Your task to perform on an android device: see creations saved in the google photos Image 0: 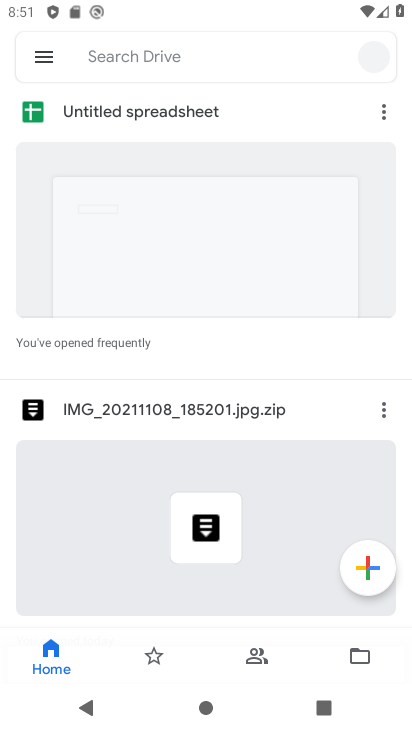
Step 0: press home button
Your task to perform on an android device: see creations saved in the google photos Image 1: 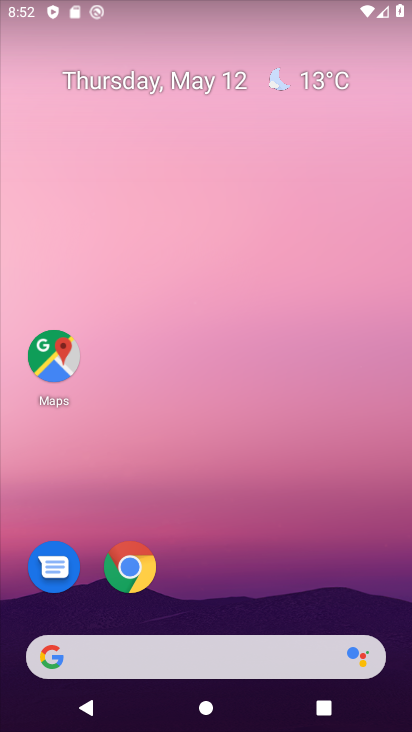
Step 1: drag from (204, 604) to (246, 104)
Your task to perform on an android device: see creations saved in the google photos Image 2: 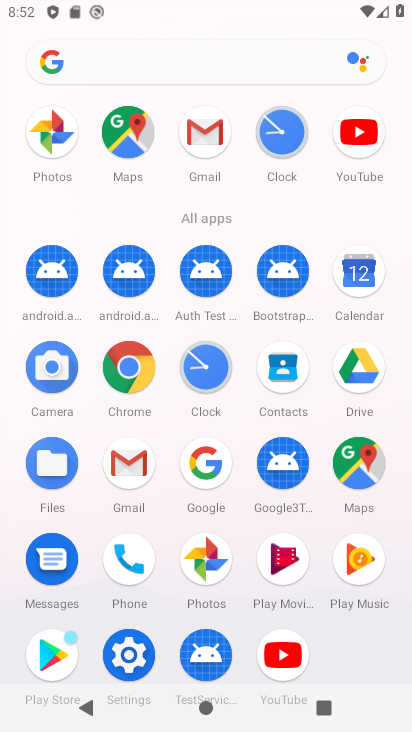
Step 2: click (197, 559)
Your task to perform on an android device: see creations saved in the google photos Image 3: 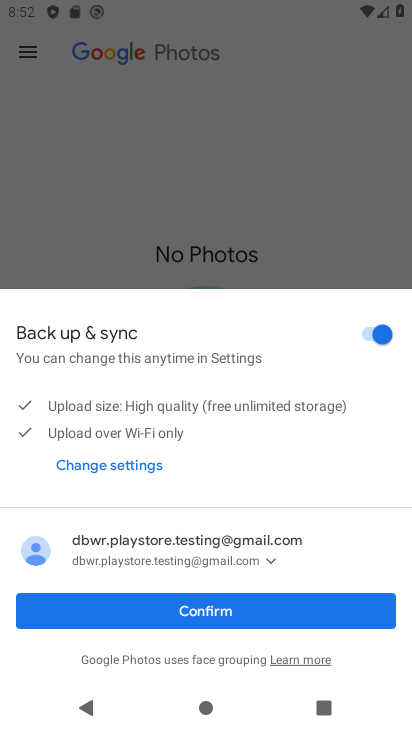
Step 3: click (217, 614)
Your task to perform on an android device: see creations saved in the google photos Image 4: 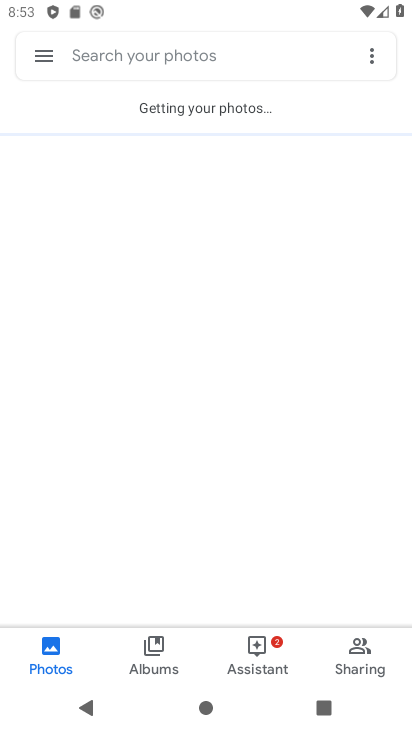
Step 4: click (131, 50)
Your task to perform on an android device: see creations saved in the google photos Image 5: 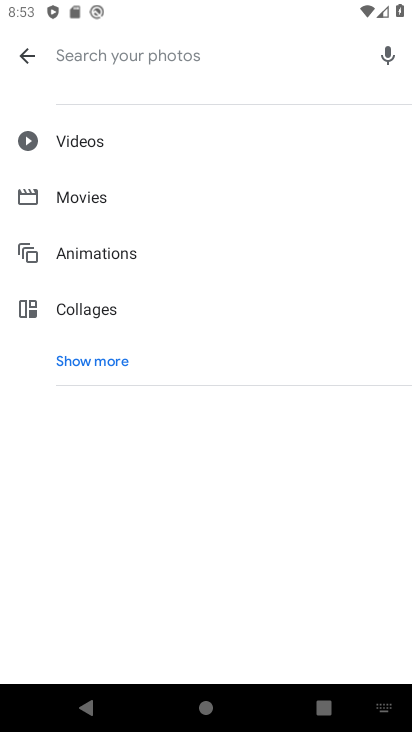
Step 5: click (104, 361)
Your task to perform on an android device: see creations saved in the google photos Image 6: 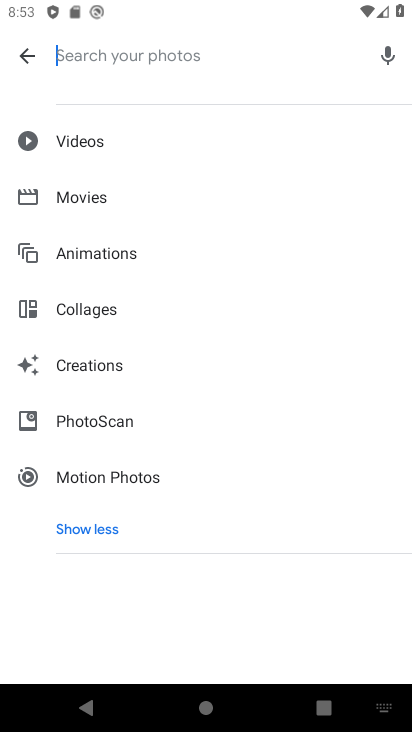
Step 6: click (105, 361)
Your task to perform on an android device: see creations saved in the google photos Image 7: 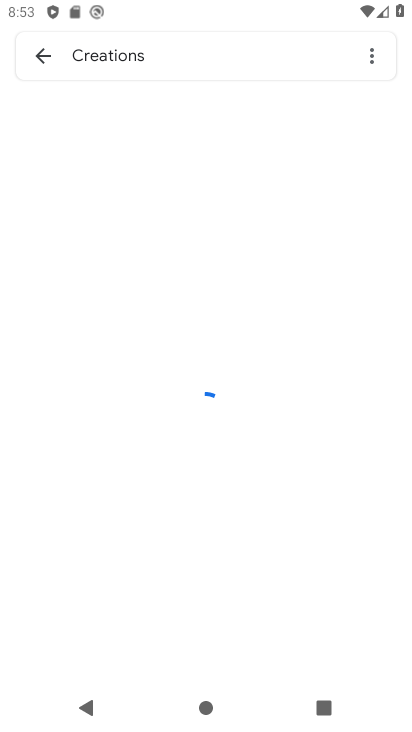
Step 7: task complete